Your task to perform on an android device: Go to Maps Image 0: 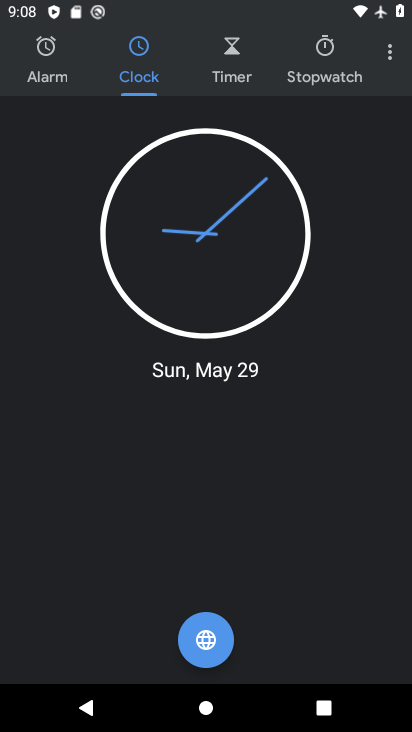
Step 0: press home button
Your task to perform on an android device: Go to Maps Image 1: 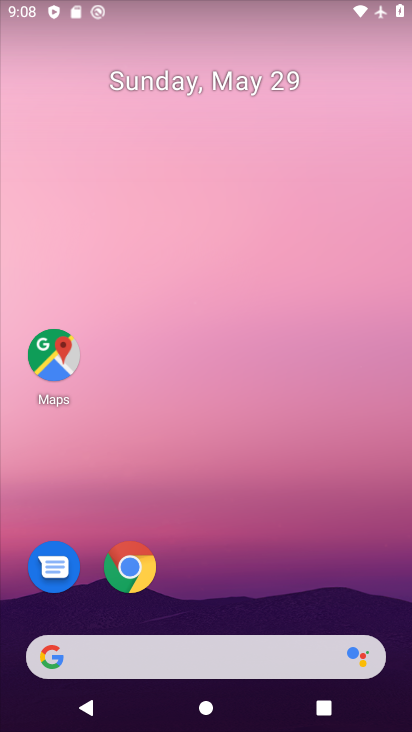
Step 1: click (54, 358)
Your task to perform on an android device: Go to Maps Image 2: 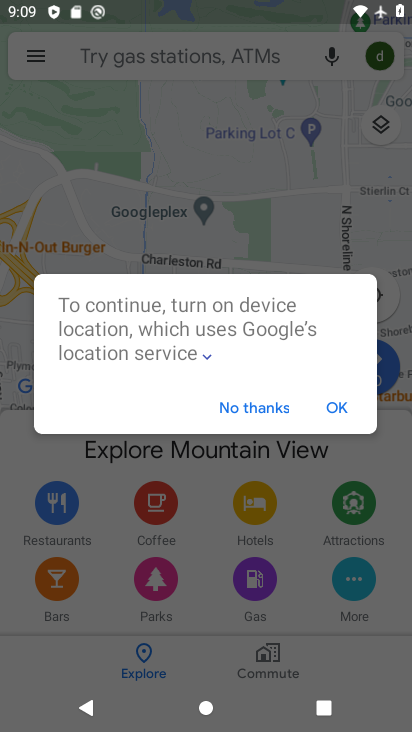
Step 2: click (329, 409)
Your task to perform on an android device: Go to Maps Image 3: 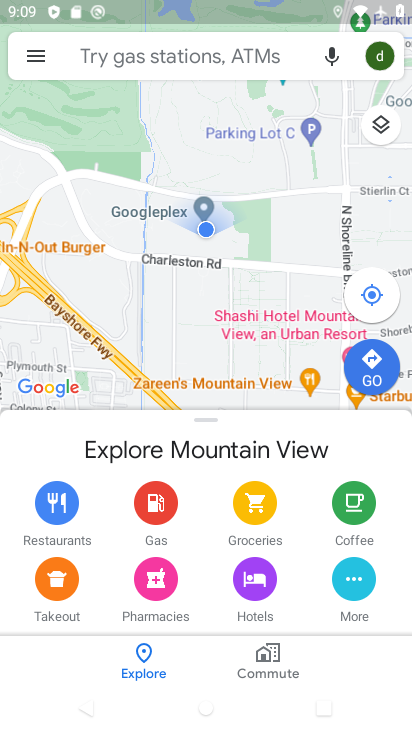
Step 3: click (255, 197)
Your task to perform on an android device: Go to Maps Image 4: 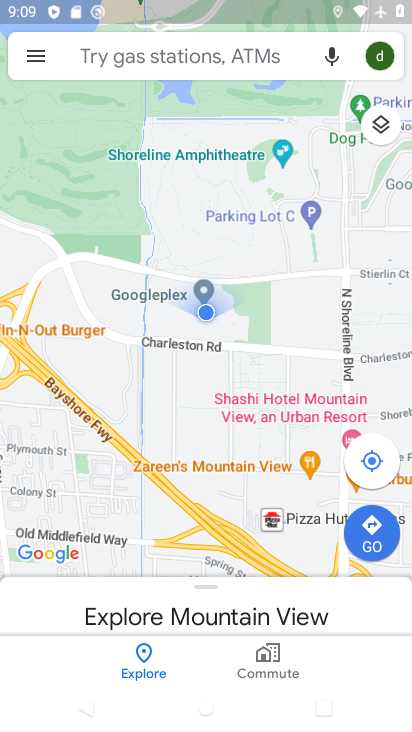
Step 4: task complete